Your task to perform on an android device: View the shopping cart on bestbuy. Search for beats solo 3 on bestbuy, select the first entry, add it to the cart, then select checkout. Image 0: 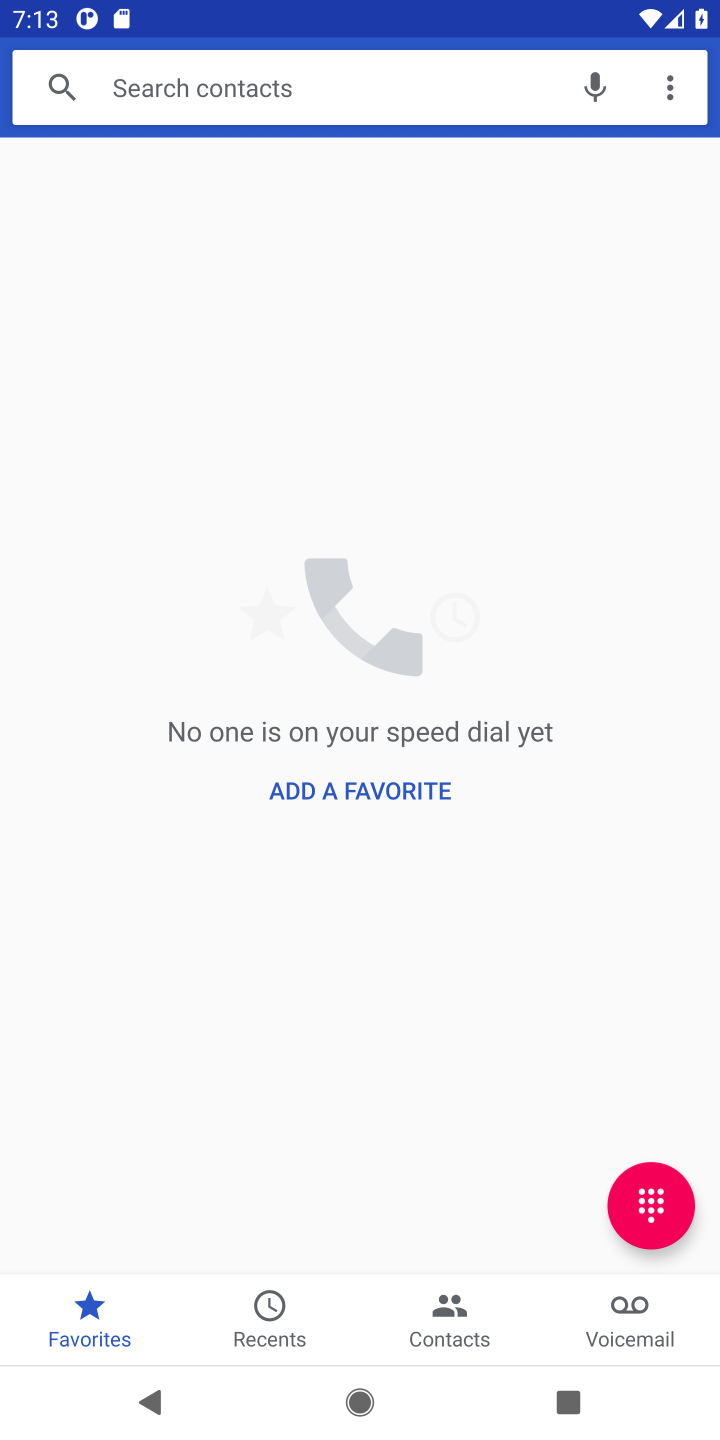
Step 0: press home button
Your task to perform on an android device: View the shopping cart on bestbuy. Search for beats solo 3 on bestbuy, select the first entry, add it to the cart, then select checkout. Image 1: 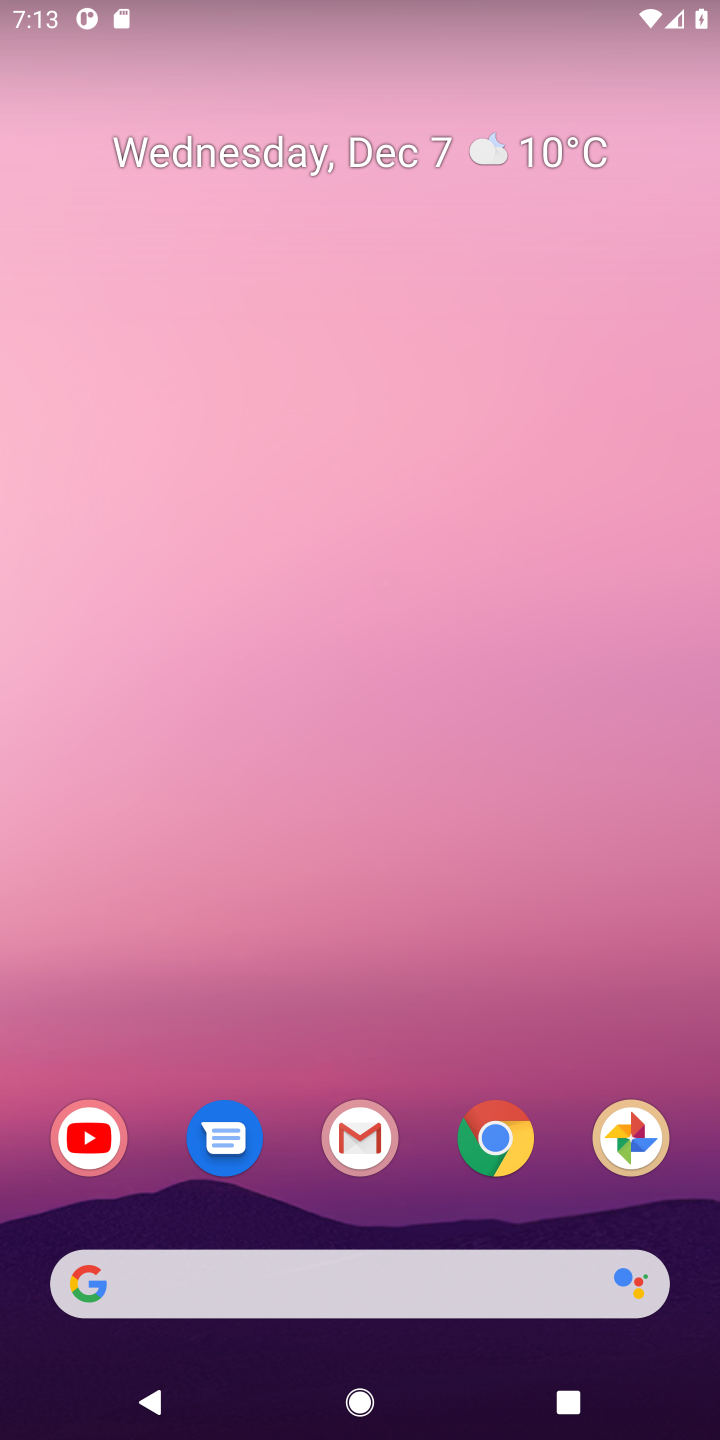
Step 1: click (147, 1277)
Your task to perform on an android device: View the shopping cart on bestbuy. Search for beats solo 3 on bestbuy, select the first entry, add it to the cart, then select checkout. Image 2: 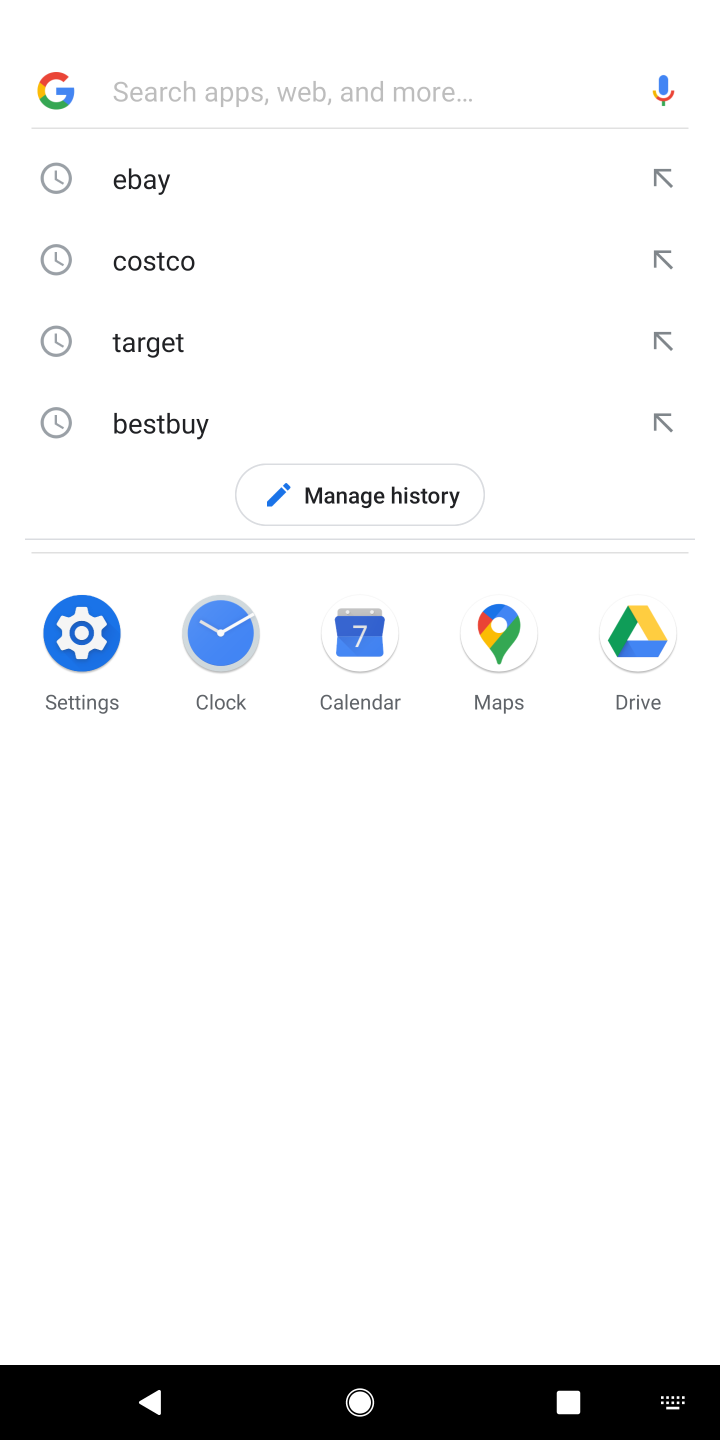
Step 2: press enter
Your task to perform on an android device: View the shopping cart on bestbuy. Search for beats solo 3 on bestbuy, select the first entry, add it to the cart, then select checkout. Image 3: 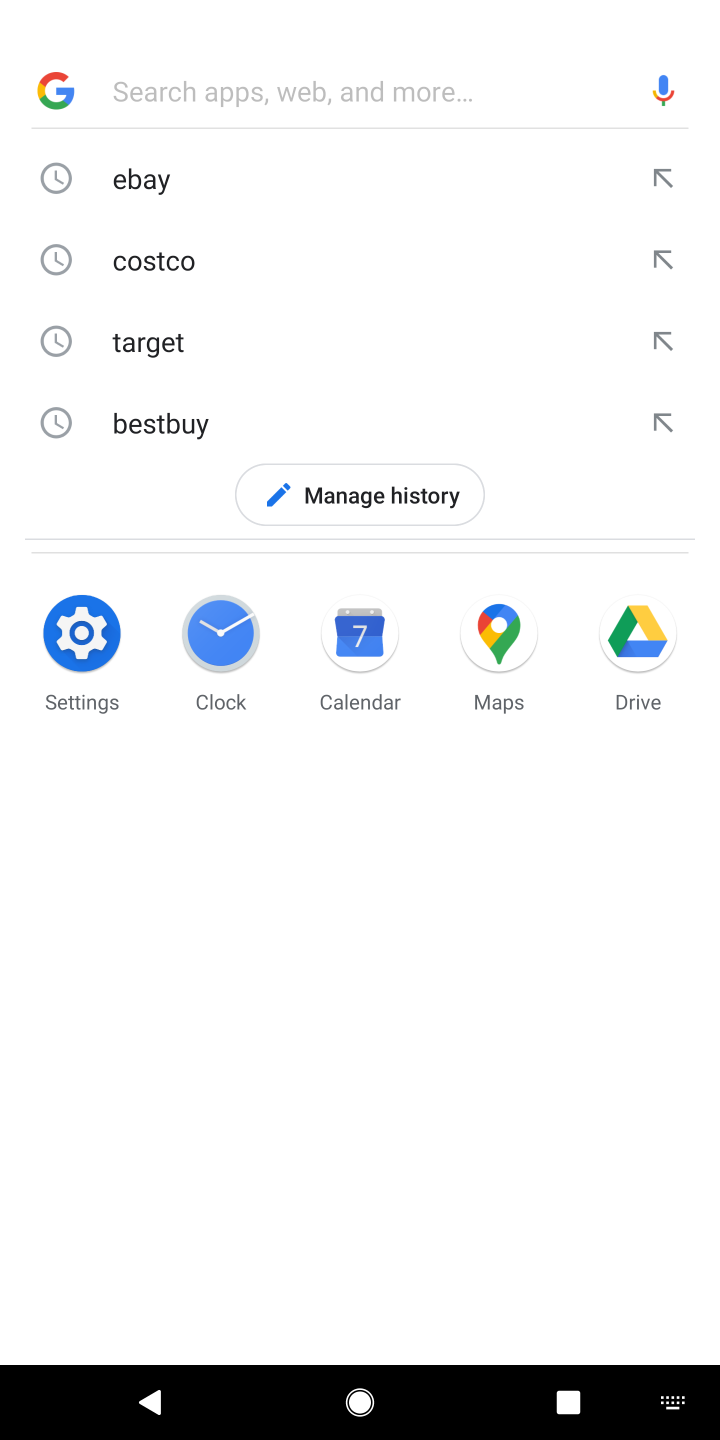
Step 3: type "bestbuy"
Your task to perform on an android device: View the shopping cart on bestbuy. Search for beats solo 3 on bestbuy, select the first entry, add it to the cart, then select checkout. Image 4: 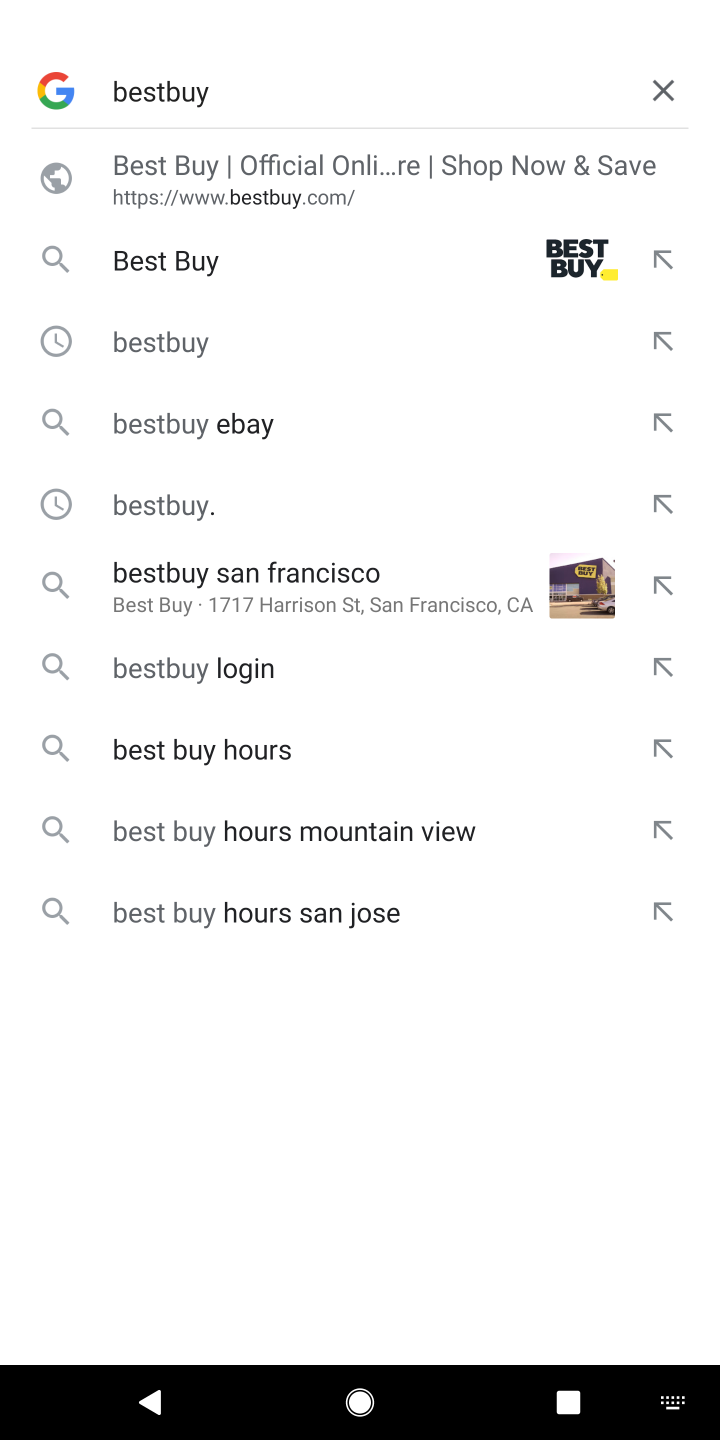
Step 4: press enter
Your task to perform on an android device: View the shopping cart on bestbuy. Search for beats solo 3 on bestbuy, select the first entry, add it to the cart, then select checkout. Image 5: 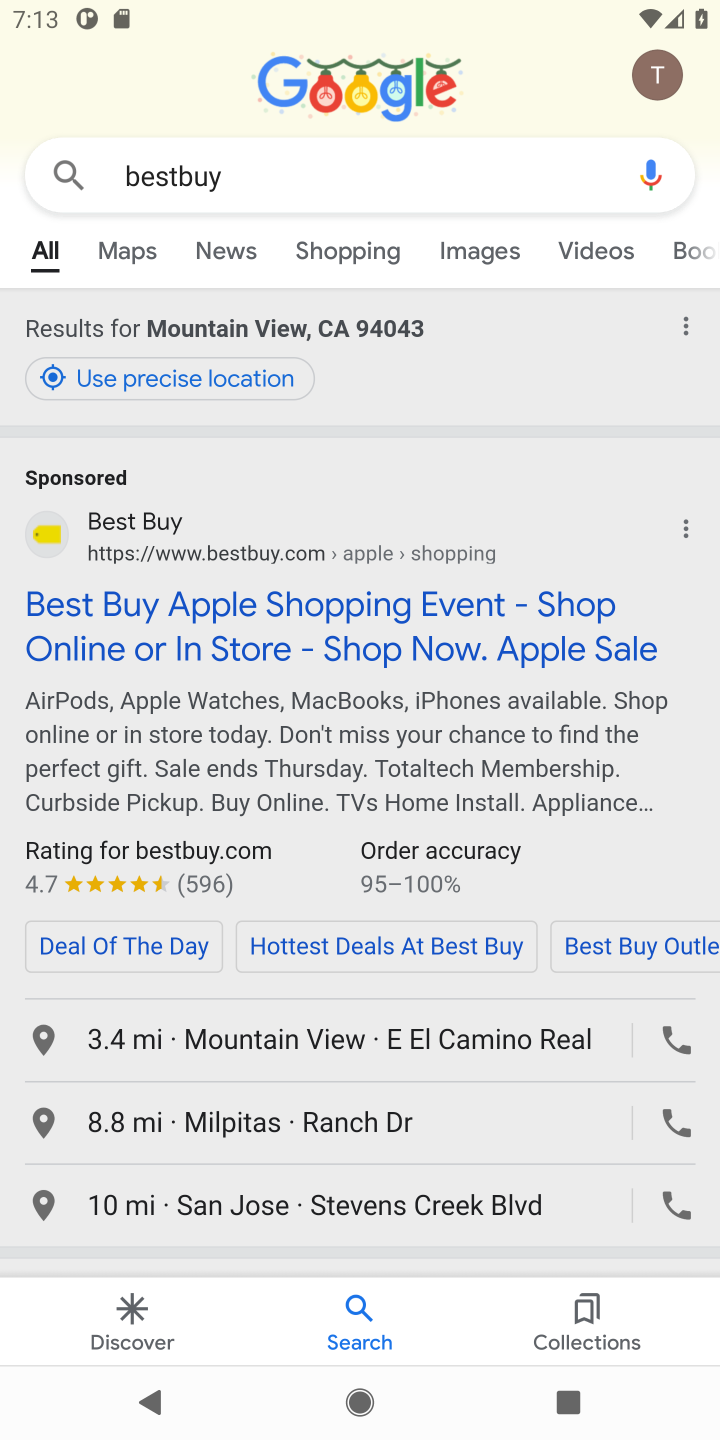
Step 5: click (213, 621)
Your task to perform on an android device: View the shopping cart on bestbuy. Search for beats solo 3 on bestbuy, select the first entry, add it to the cart, then select checkout. Image 6: 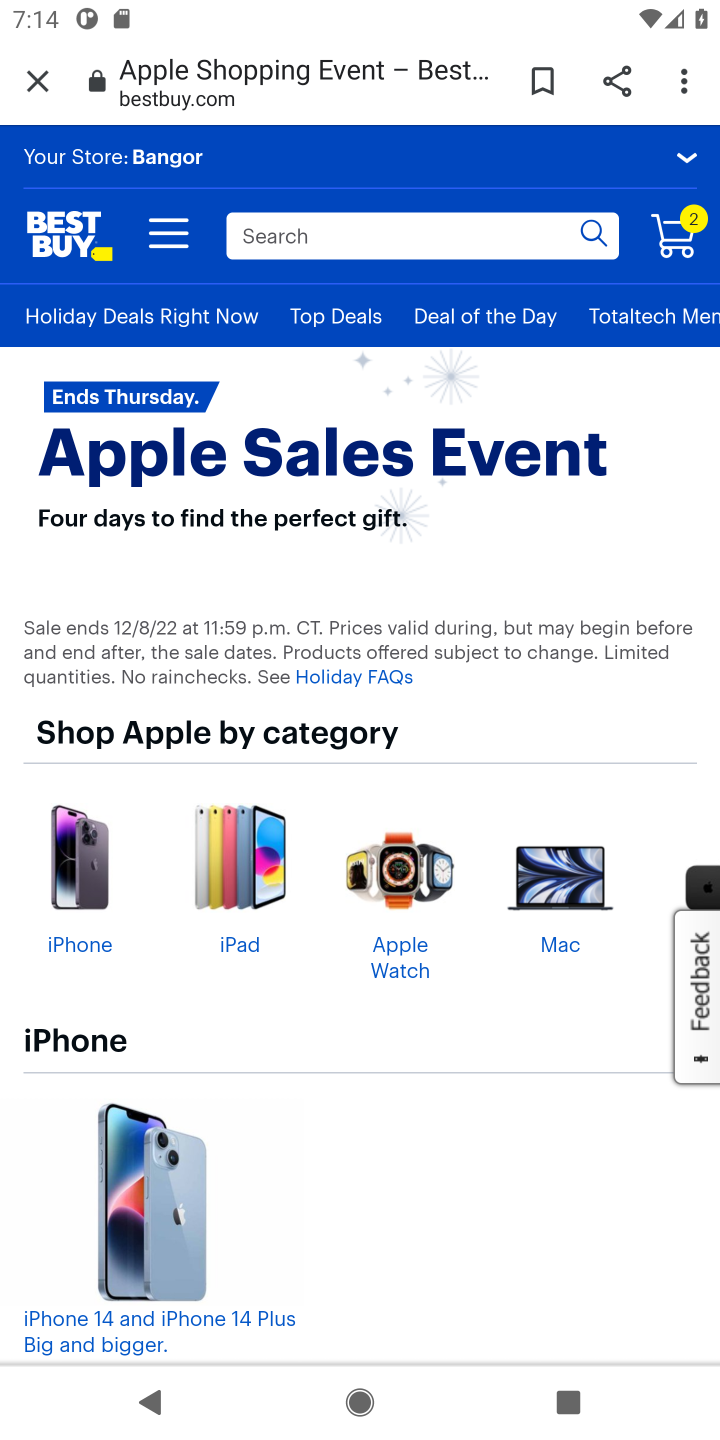
Step 6: click (675, 234)
Your task to perform on an android device: View the shopping cart on bestbuy. Search for beats solo 3 on bestbuy, select the first entry, add it to the cart, then select checkout. Image 7: 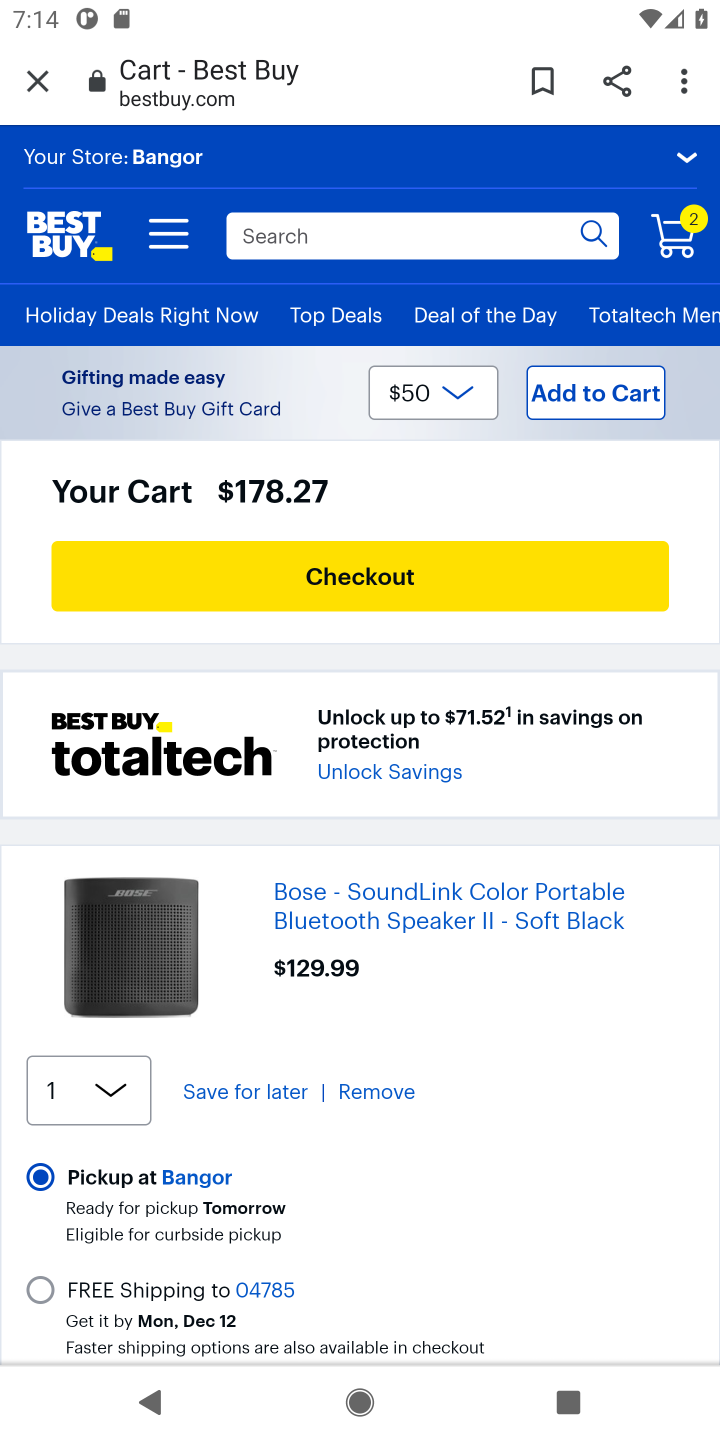
Step 7: click (290, 226)
Your task to perform on an android device: View the shopping cart on bestbuy. Search for beats solo 3 on bestbuy, select the first entry, add it to the cart, then select checkout. Image 8: 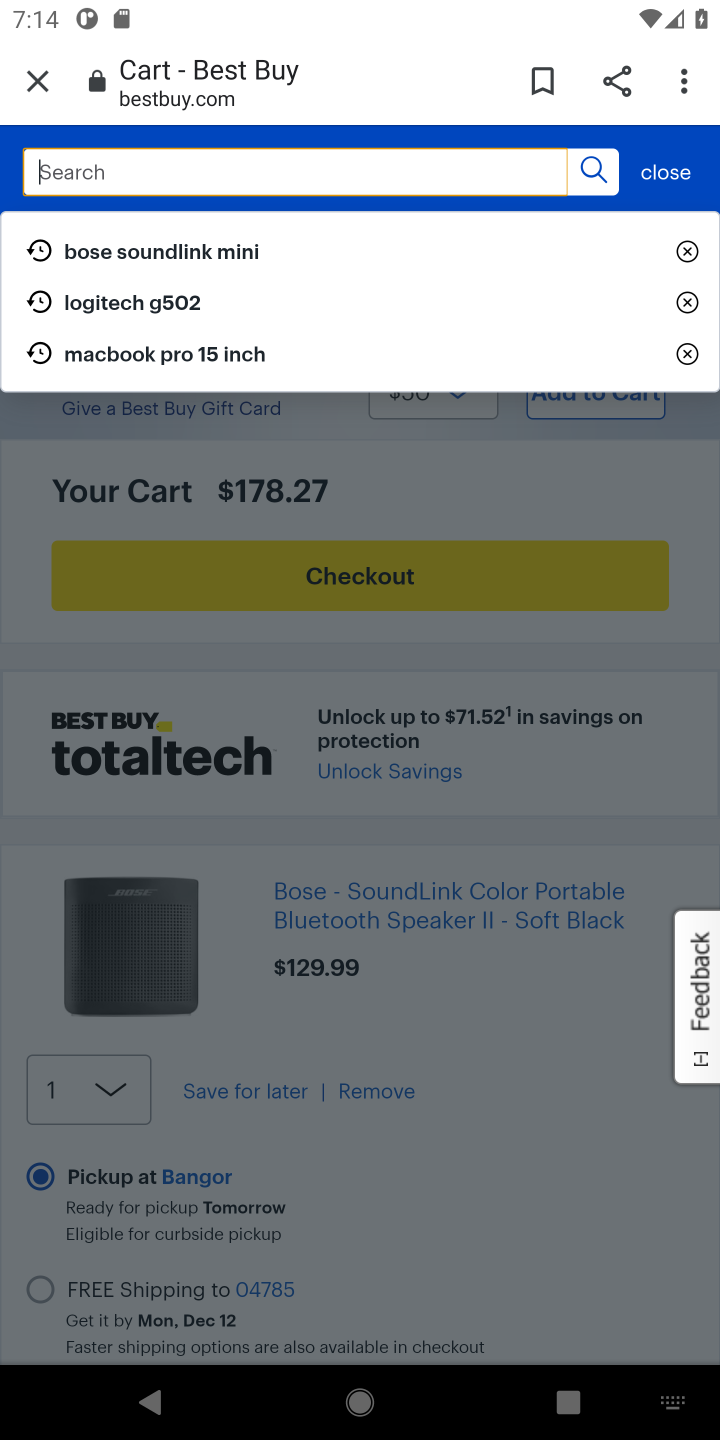
Step 8: type "beats solo 3"
Your task to perform on an android device: View the shopping cart on bestbuy. Search for beats solo 3 on bestbuy, select the first entry, add it to the cart, then select checkout. Image 9: 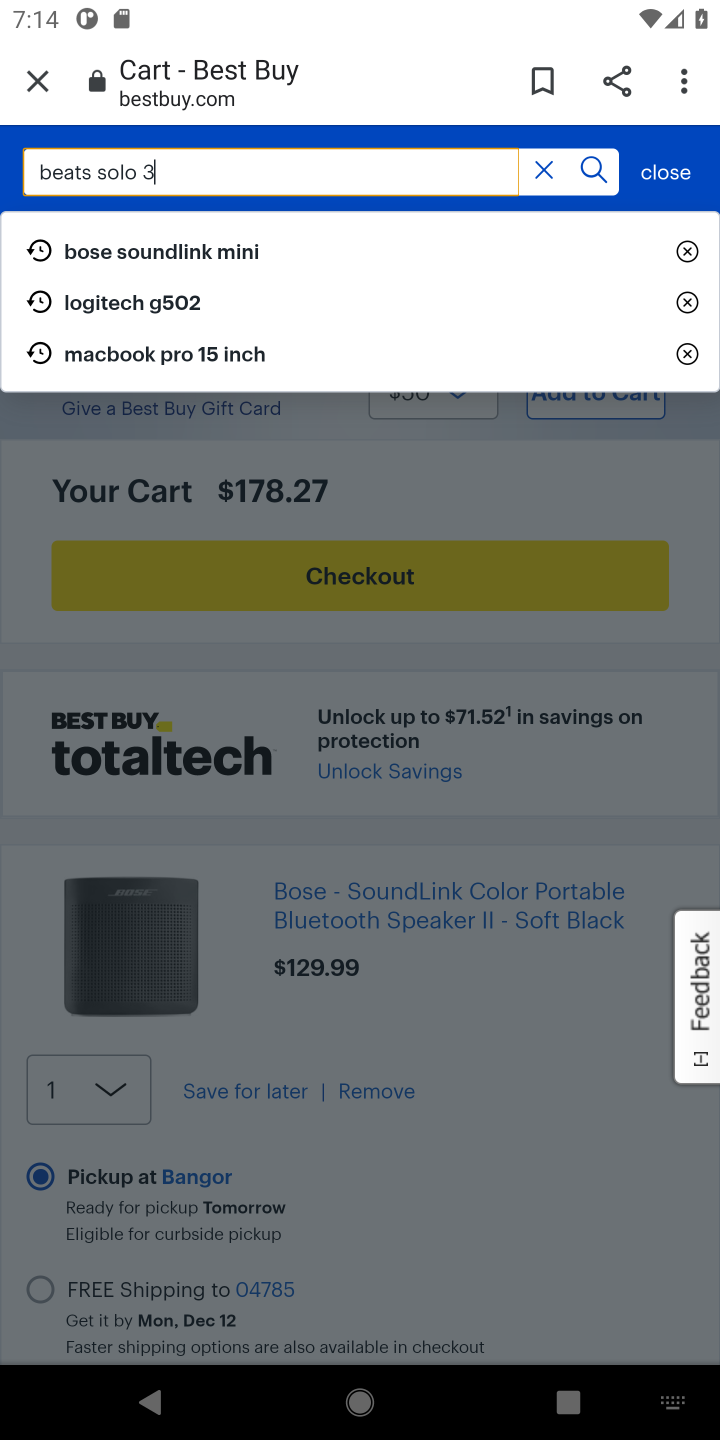
Step 9: press enter
Your task to perform on an android device: View the shopping cart on bestbuy. Search for beats solo 3 on bestbuy, select the first entry, add it to the cart, then select checkout. Image 10: 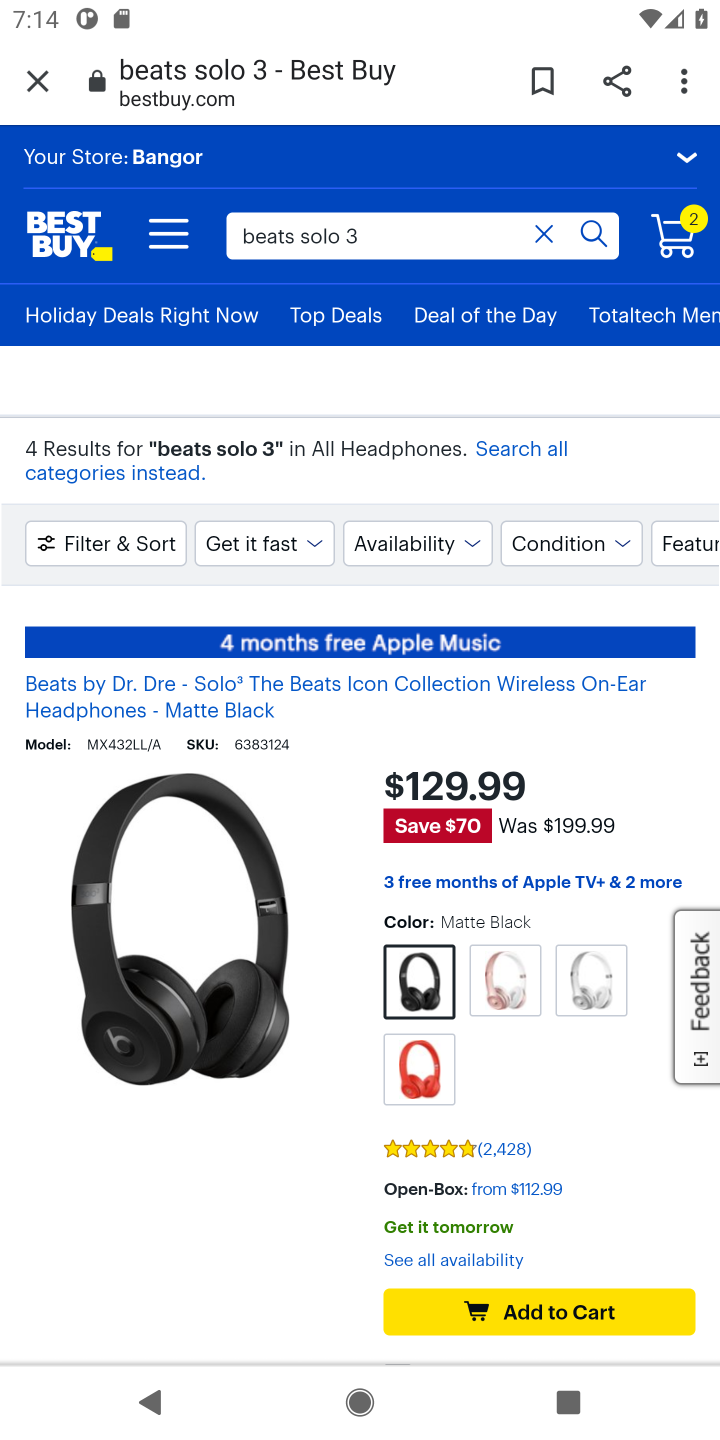
Step 10: click (557, 1253)
Your task to perform on an android device: View the shopping cart on bestbuy. Search for beats solo 3 on bestbuy, select the first entry, add it to the cart, then select checkout. Image 11: 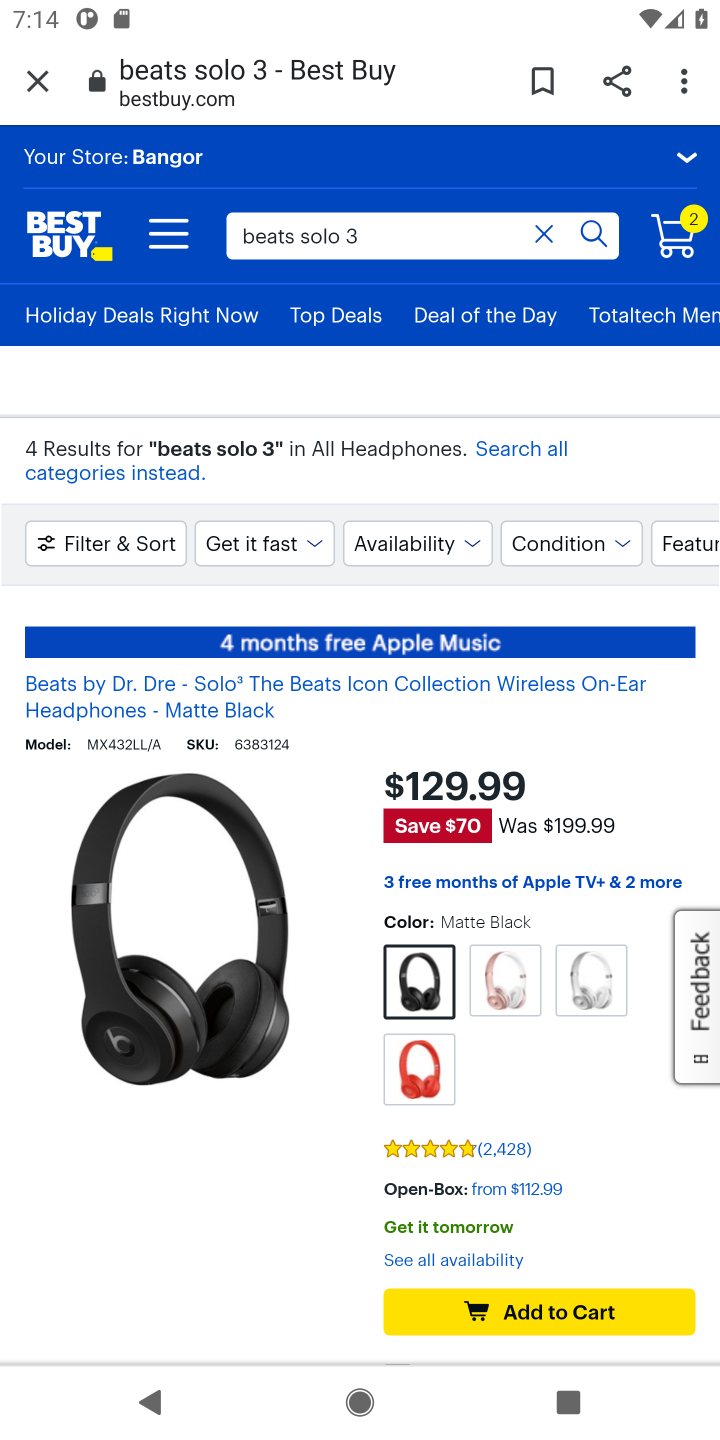
Step 11: click (553, 1318)
Your task to perform on an android device: View the shopping cart on bestbuy. Search for beats solo 3 on bestbuy, select the first entry, add it to the cart, then select checkout. Image 12: 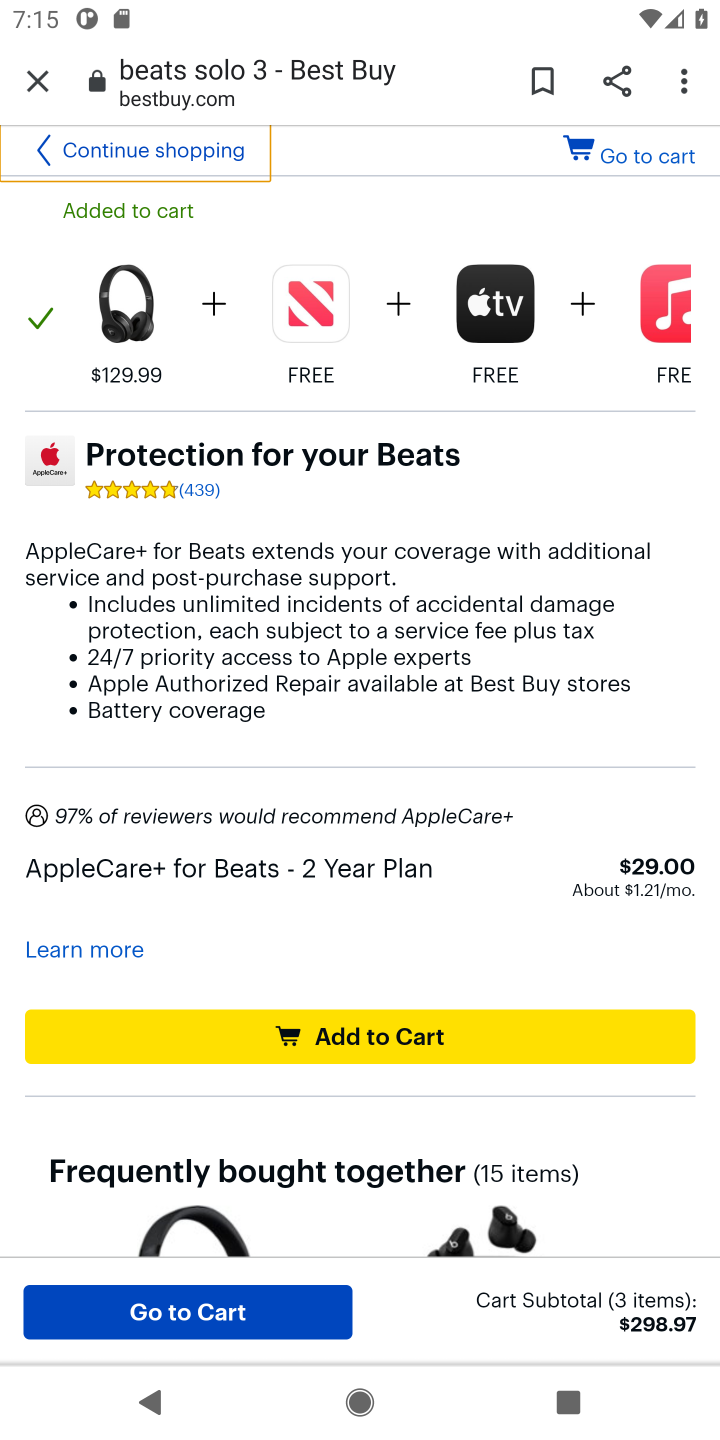
Step 12: task complete